Your task to perform on an android device: Go to calendar. Show me events next week Image 0: 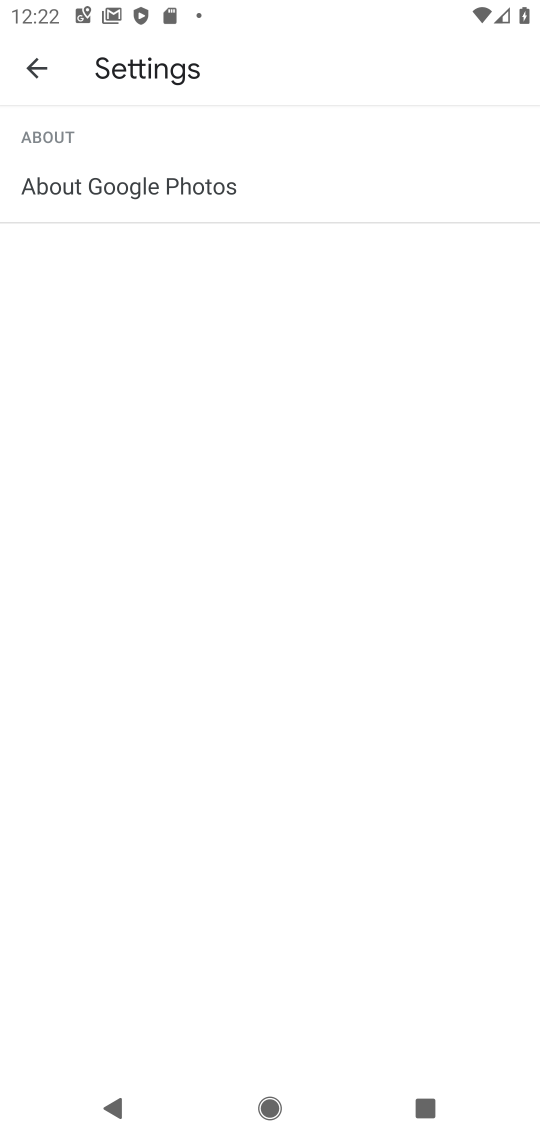
Step 0: press home button
Your task to perform on an android device: Go to calendar. Show me events next week Image 1: 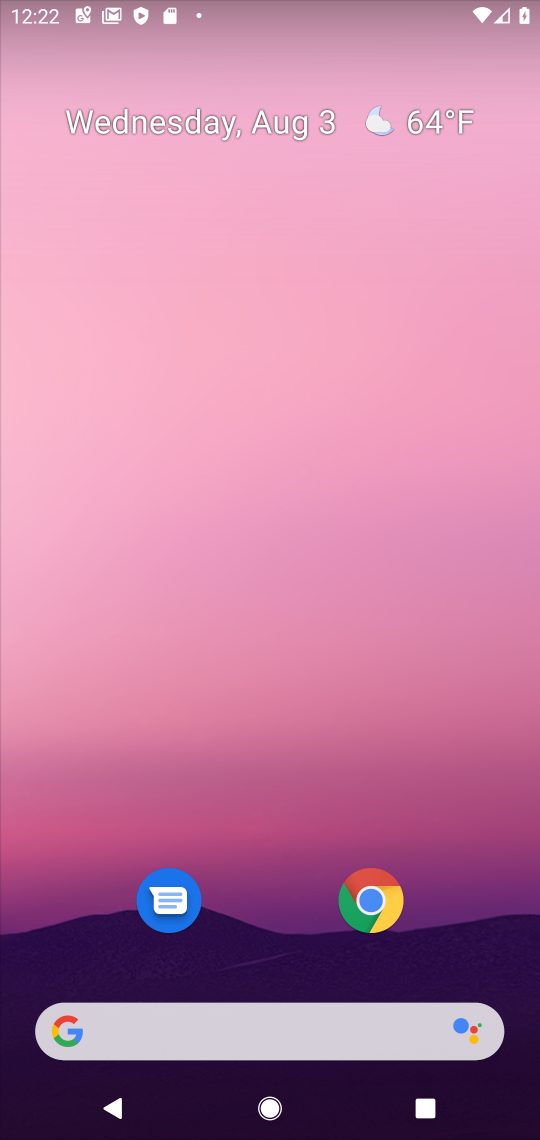
Step 1: drag from (272, 756) to (269, 0)
Your task to perform on an android device: Go to calendar. Show me events next week Image 2: 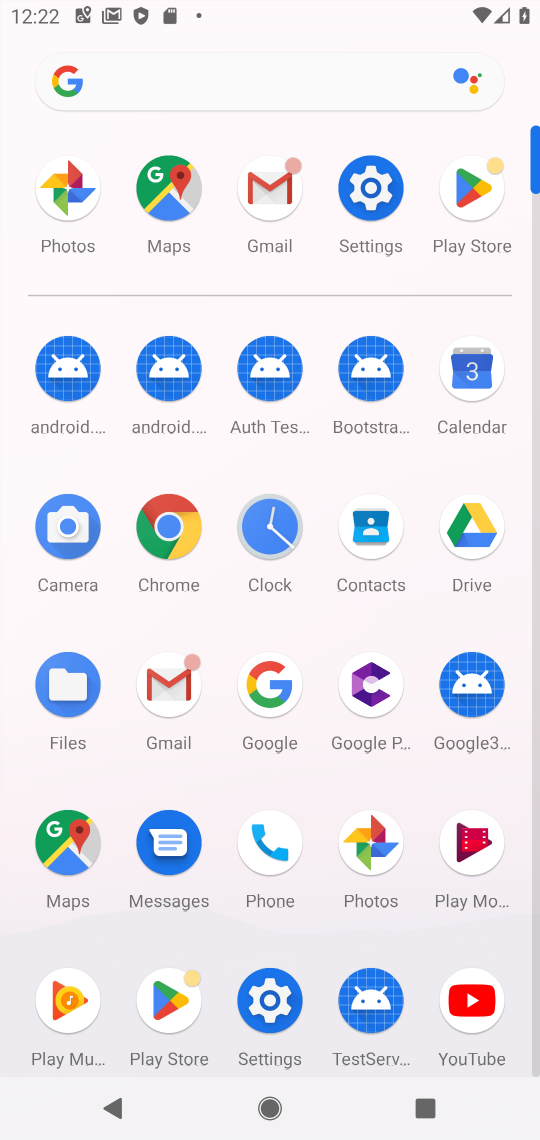
Step 2: click (482, 375)
Your task to perform on an android device: Go to calendar. Show me events next week Image 3: 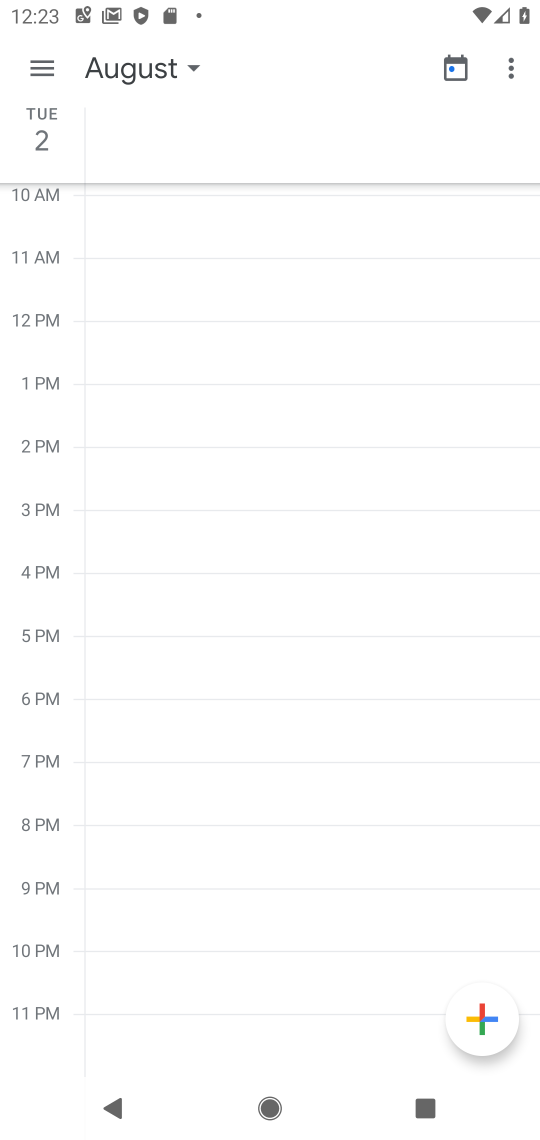
Step 3: click (176, 74)
Your task to perform on an android device: Go to calendar. Show me events next week Image 4: 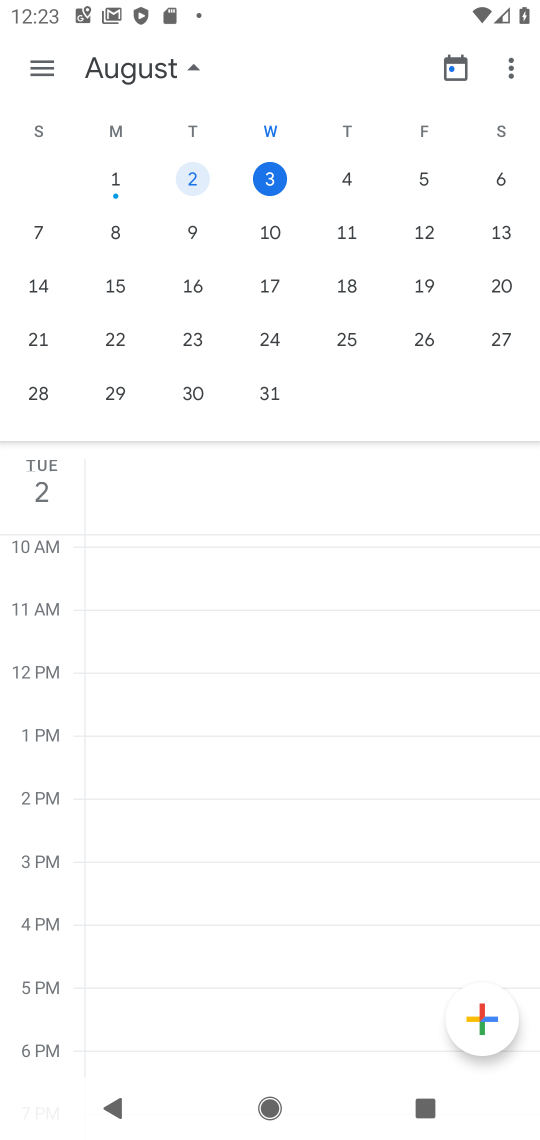
Step 4: click (198, 225)
Your task to perform on an android device: Go to calendar. Show me events next week Image 5: 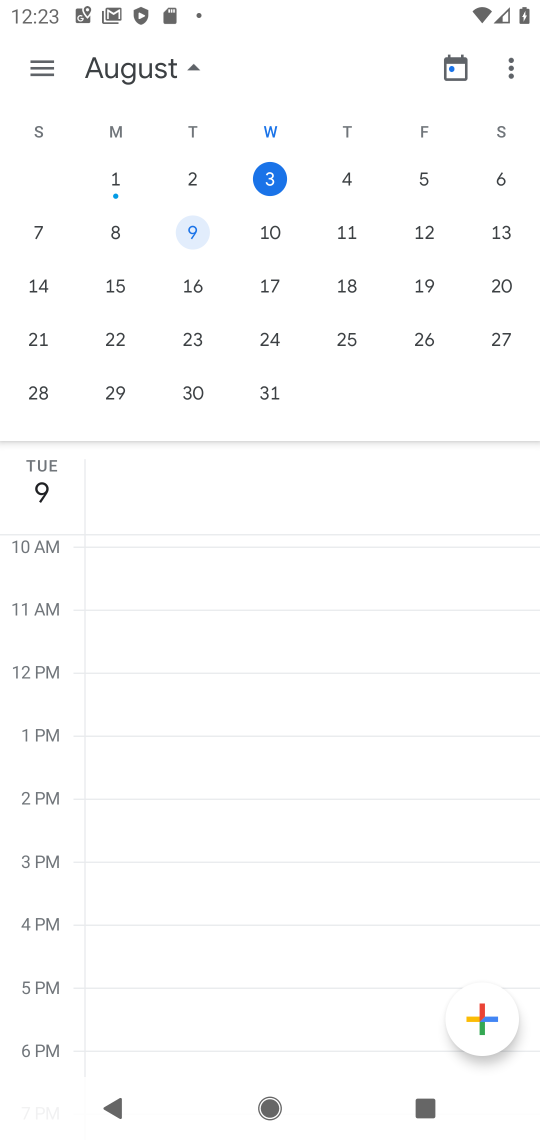
Step 5: click (43, 62)
Your task to perform on an android device: Go to calendar. Show me events next week Image 6: 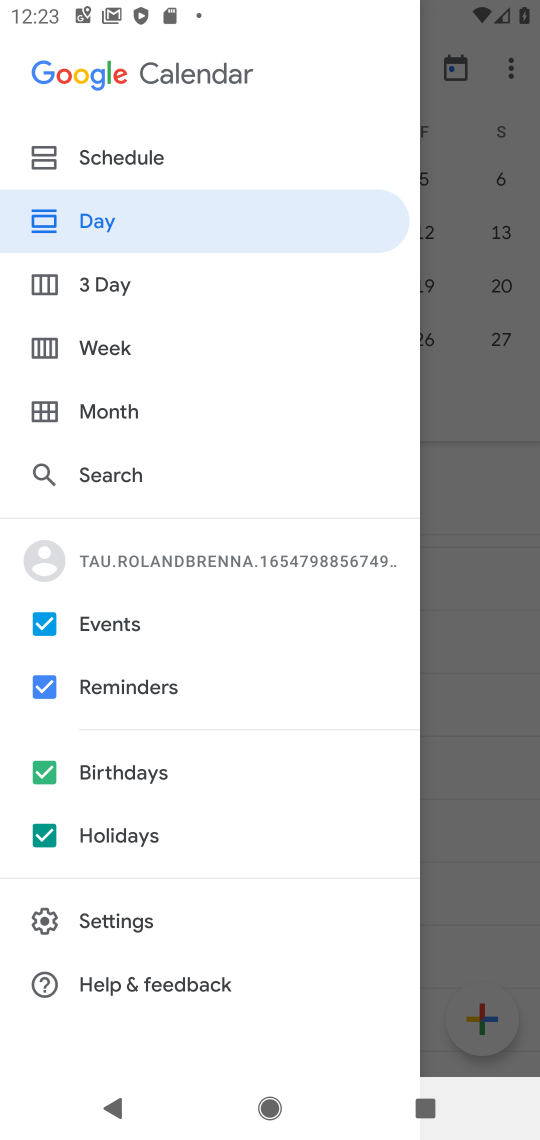
Step 6: click (96, 300)
Your task to perform on an android device: Go to calendar. Show me events next week Image 7: 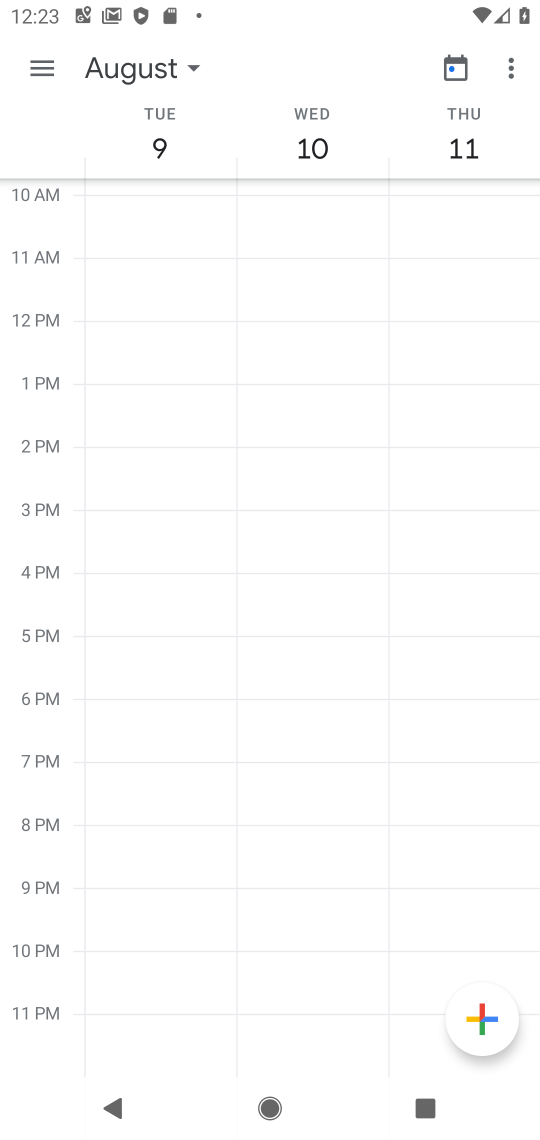
Step 7: click (47, 60)
Your task to perform on an android device: Go to calendar. Show me events next week Image 8: 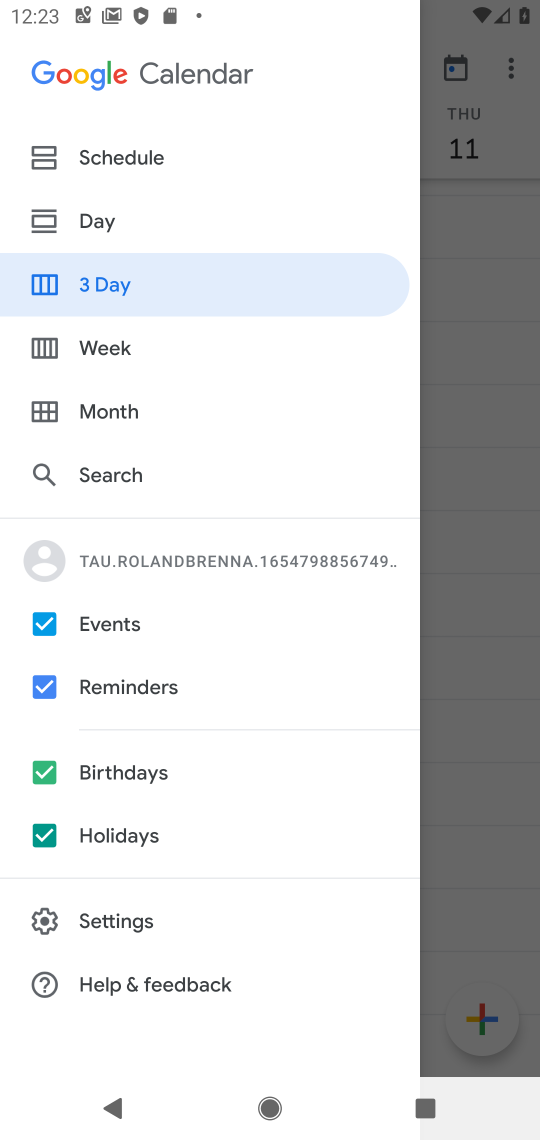
Step 8: click (115, 338)
Your task to perform on an android device: Go to calendar. Show me events next week Image 9: 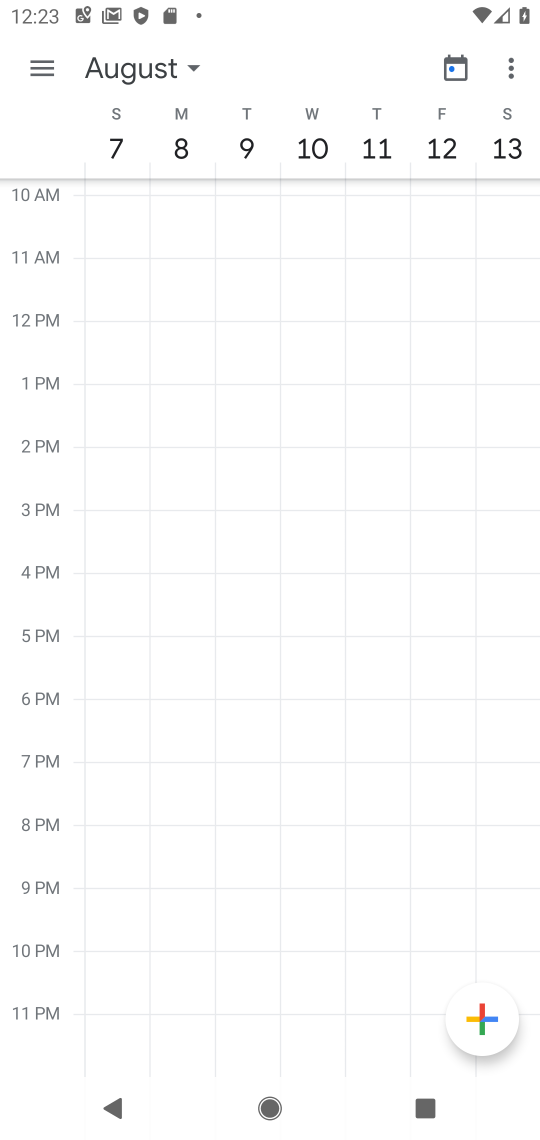
Step 9: click (184, 75)
Your task to perform on an android device: Go to calendar. Show me events next week Image 10: 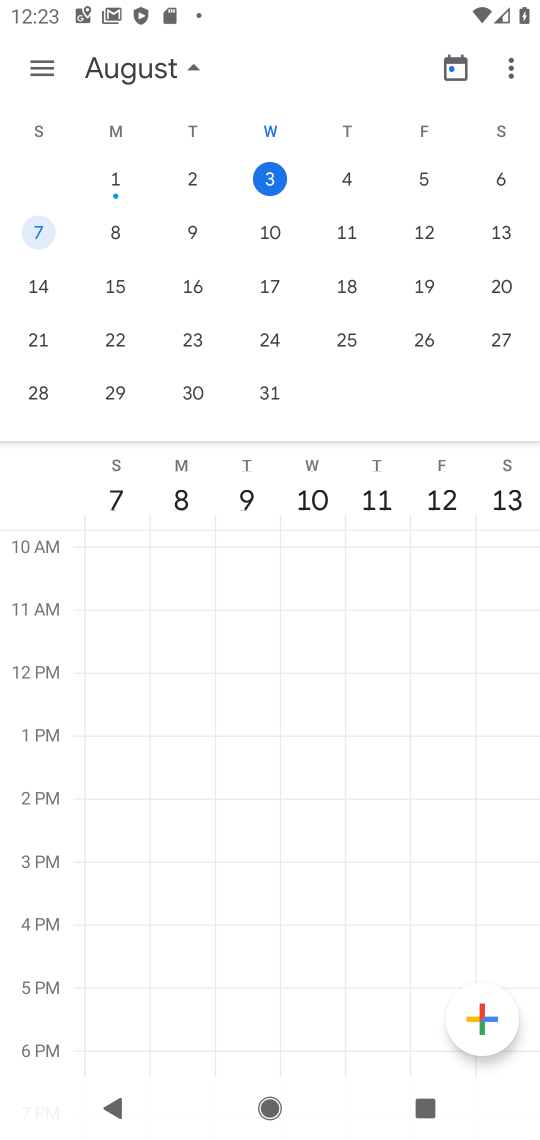
Step 10: task complete